Your task to perform on an android device: choose inbox layout in the gmail app Image 0: 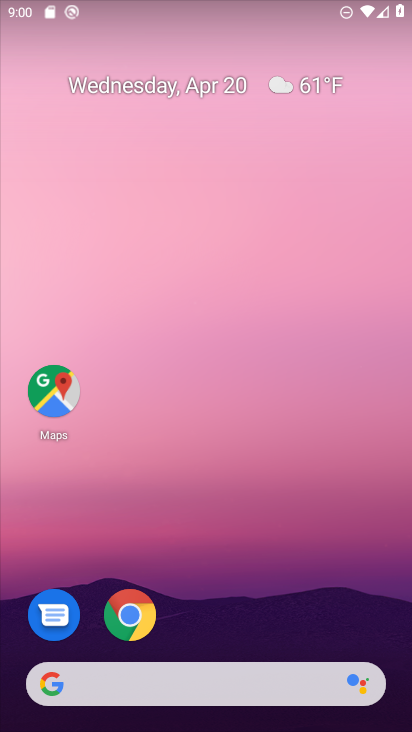
Step 0: click (283, 248)
Your task to perform on an android device: choose inbox layout in the gmail app Image 1: 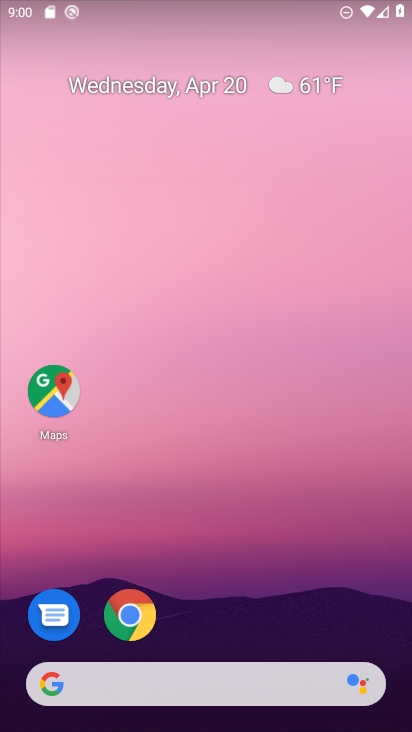
Step 1: drag from (196, 622) to (227, 245)
Your task to perform on an android device: choose inbox layout in the gmail app Image 2: 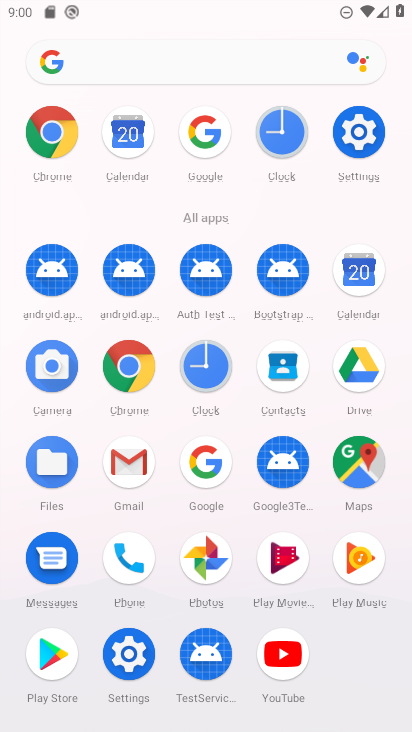
Step 2: click (123, 465)
Your task to perform on an android device: choose inbox layout in the gmail app Image 3: 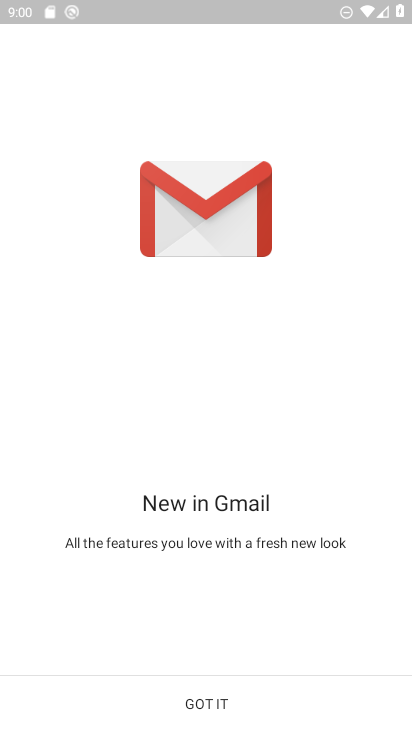
Step 3: click (193, 700)
Your task to perform on an android device: choose inbox layout in the gmail app Image 4: 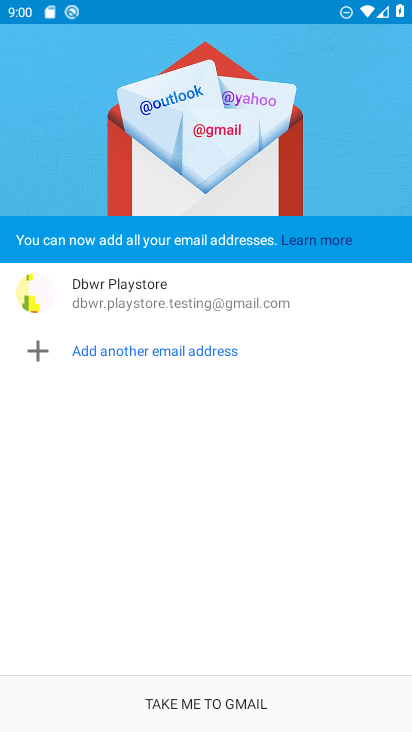
Step 4: click (193, 697)
Your task to perform on an android device: choose inbox layout in the gmail app Image 5: 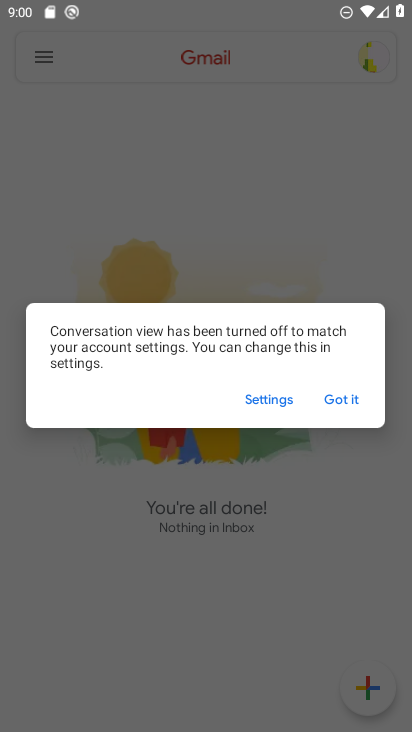
Step 5: click (340, 409)
Your task to perform on an android device: choose inbox layout in the gmail app Image 6: 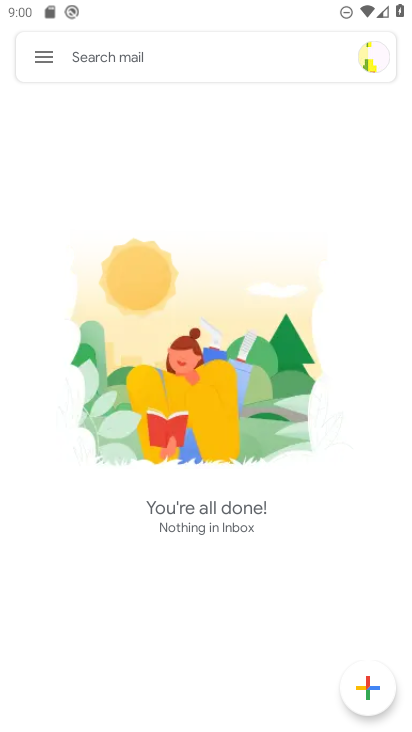
Step 6: click (45, 52)
Your task to perform on an android device: choose inbox layout in the gmail app Image 7: 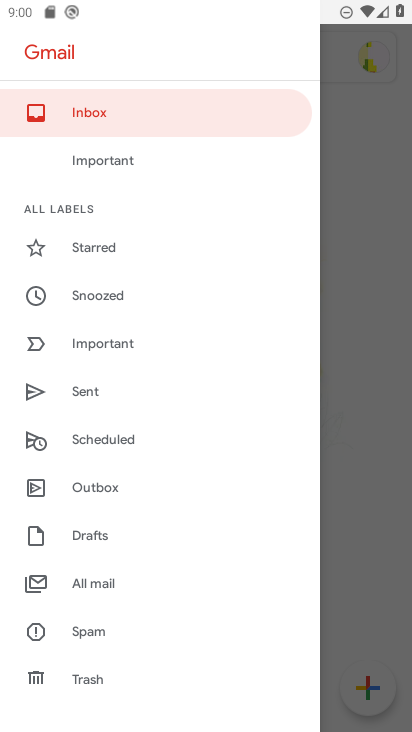
Step 7: drag from (115, 610) to (186, 259)
Your task to perform on an android device: choose inbox layout in the gmail app Image 8: 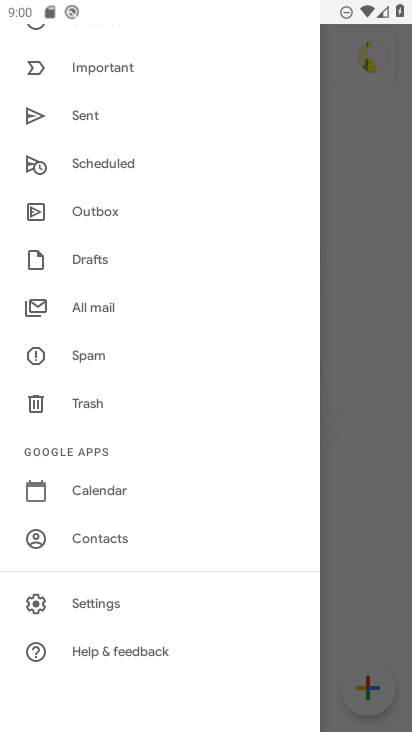
Step 8: click (102, 609)
Your task to perform on an android device: choose inbox layout in the gmail app Image 9: 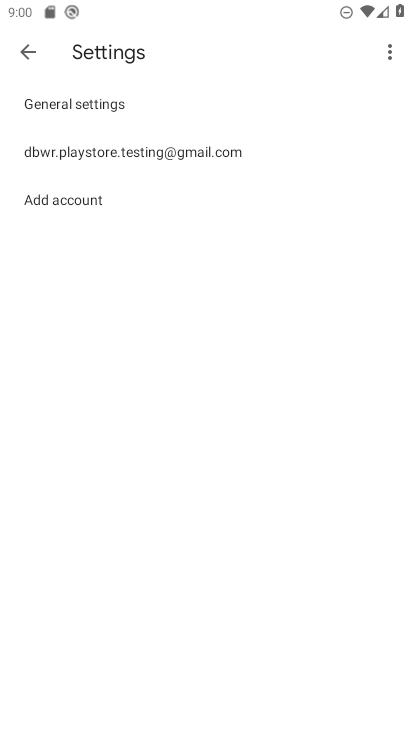
Step 9: click (150, 145)
Your task to perform on an android device: choose inbox layout in the gmail app Image 10: 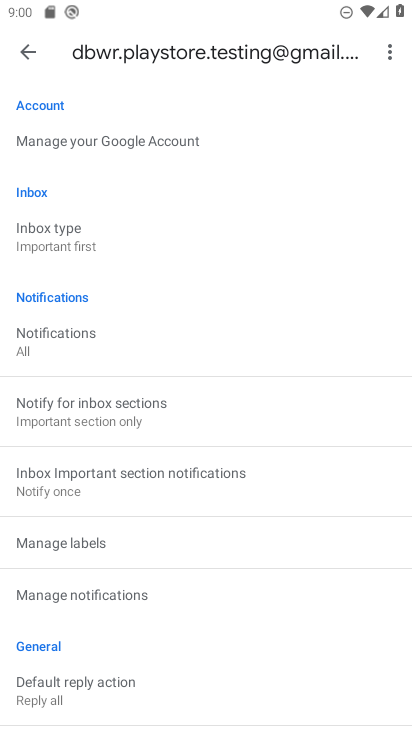
Step 10: click (83, 241)
Your task to perform on an android device: choose inbox layout in the gmail app Image 11: 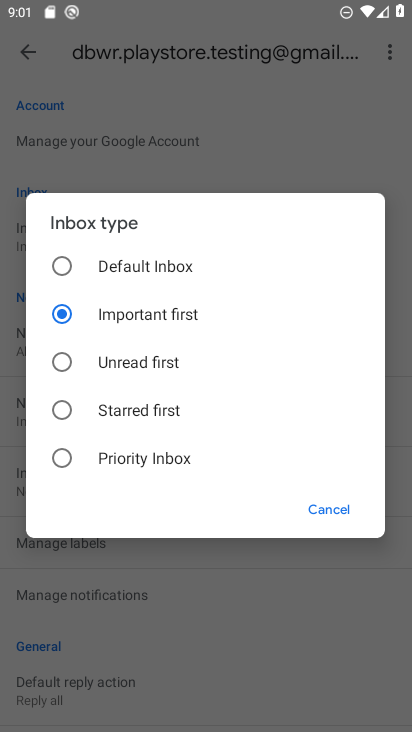
Step 11: click (122, 463)
Your task to perform on an android device: choose inbox layout in the gmail app Image 12: 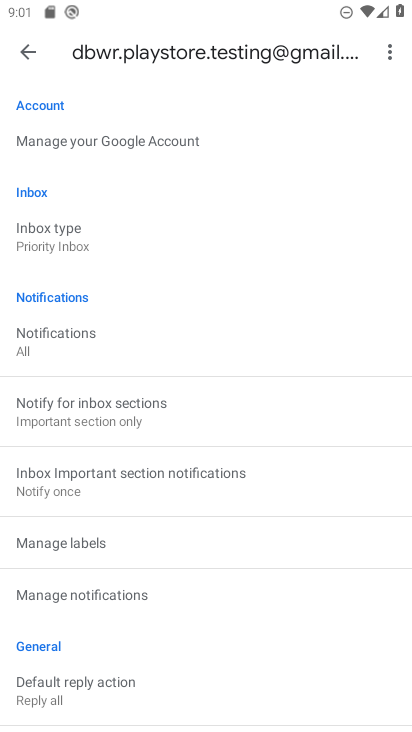
Step 12: task complete